Your task to perform on an android device: turn on sleep mode Image 0: 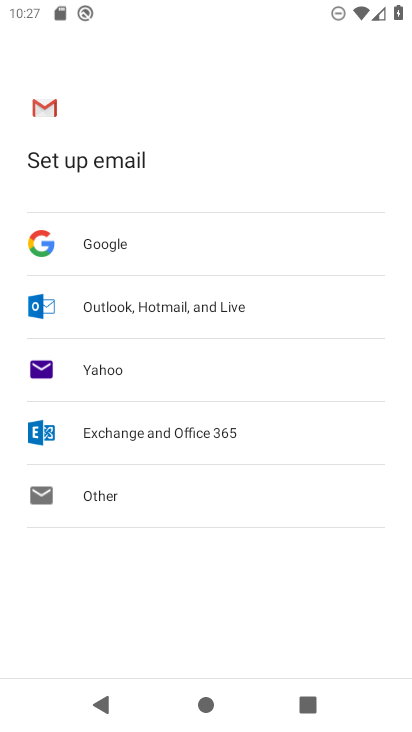
Step 0: drag from (244, 575) to (293, 250)
Your task to perform on an android device: turn on sleep mode Image 1: 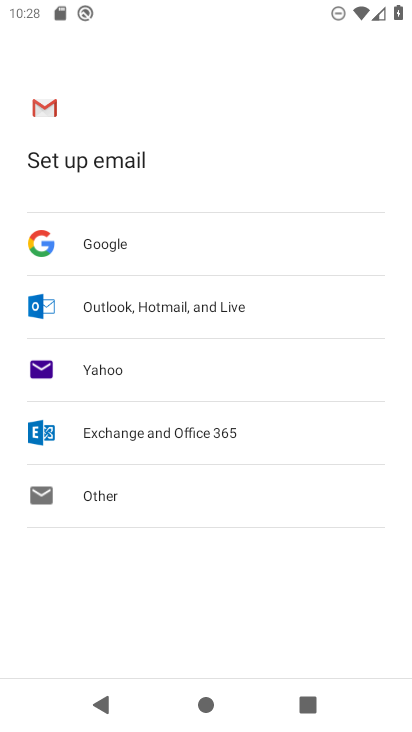
Step 1: press home button
Your task to perform on an android device: turn on sleep mode Image 2: 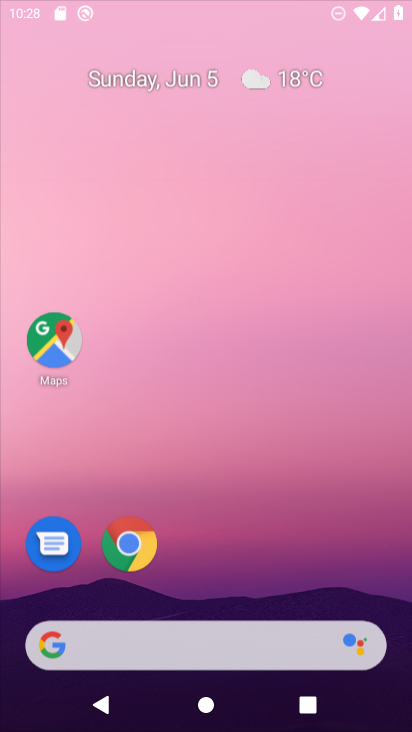
Step 2: drag from (223, 634) to (274, 17)
Your task to perform on an android device: turn on sleep mode Image 3: 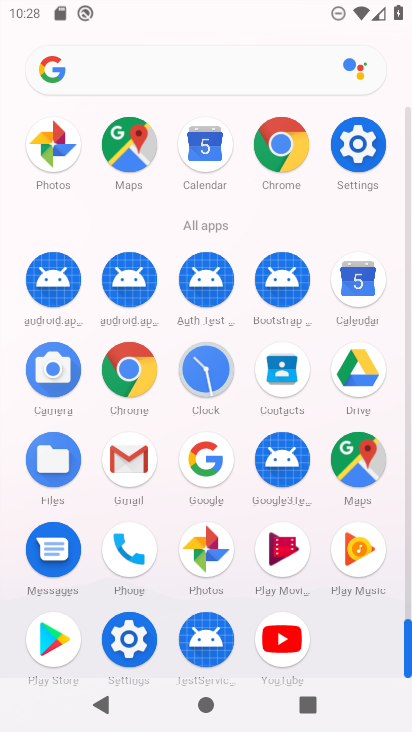
Step 3: drag from (273, 625) to (276, 133)
Your task to perform on an android device: turn on sleep mode Image 4: 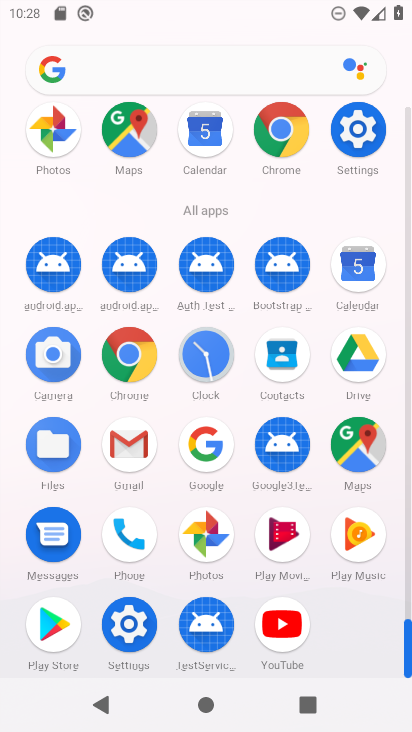
Step 4: click (354, 128)
Your task to perform on an android device: turn on sleep mode Image 5: 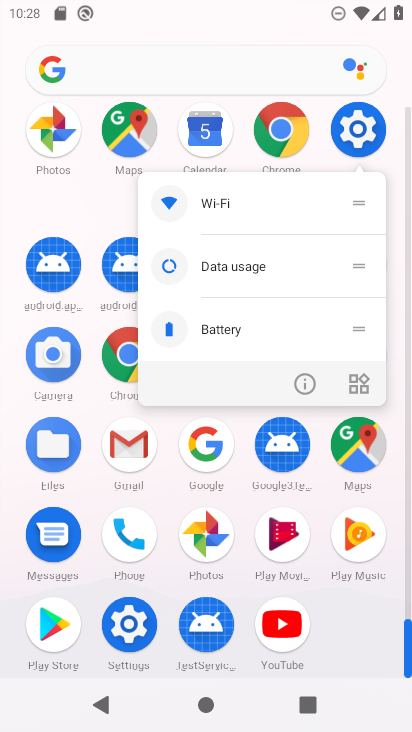
Step 5: click (310, 385)
Your task to perform on an android device: turn on sleep mode Image 6: 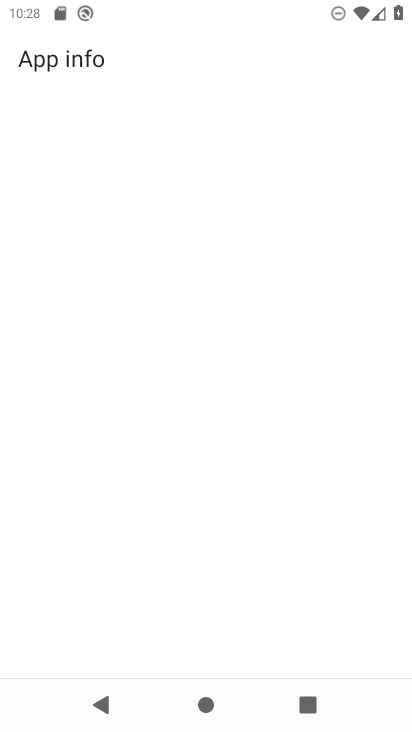
Step 6: drag from (190, 591) to (266, 150)
Your task to perform on an android device: turn on sleep mode Image 7: 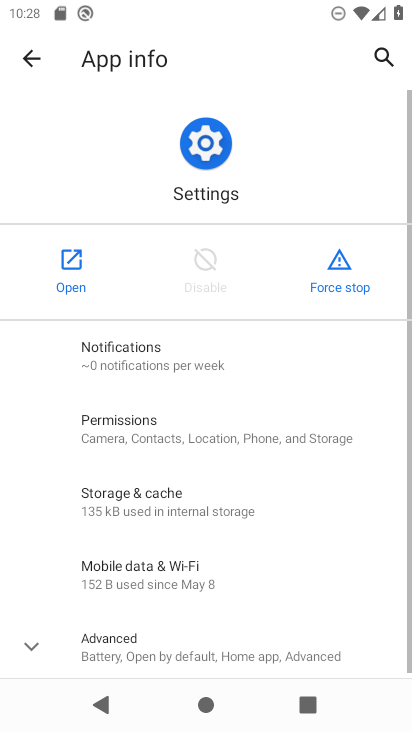
Step 7: click (77, 268)
Your task to perform on an android device: turn on sleep mode Image 8: 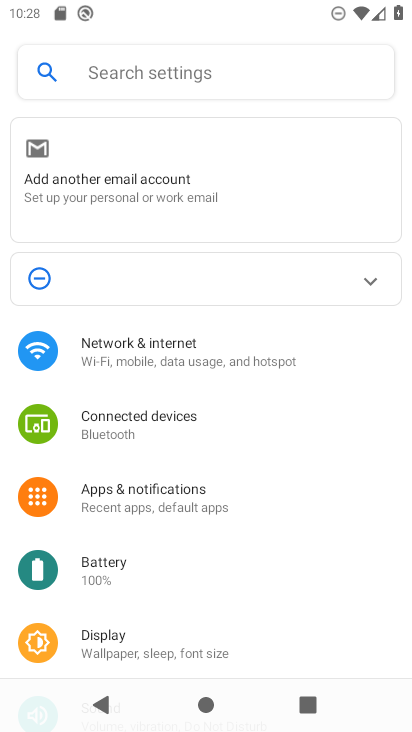
Step 8: click (132, 646)
Your task to perform on an android device: turn on sleep mode Image 9: 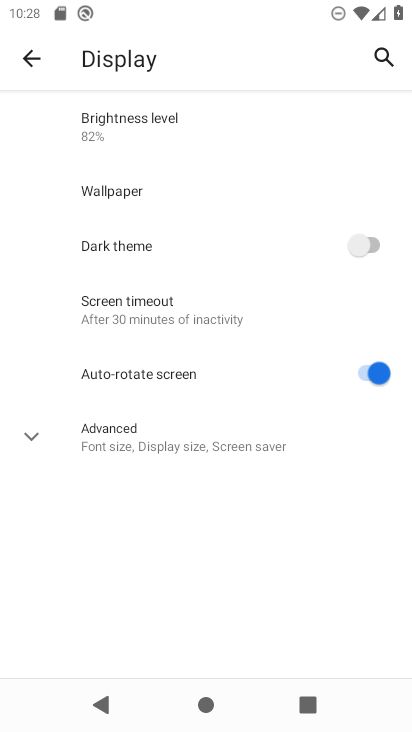
Step 9: click (174, 306)
Your task to perform on an android device: turn on sleep mode Image 10: 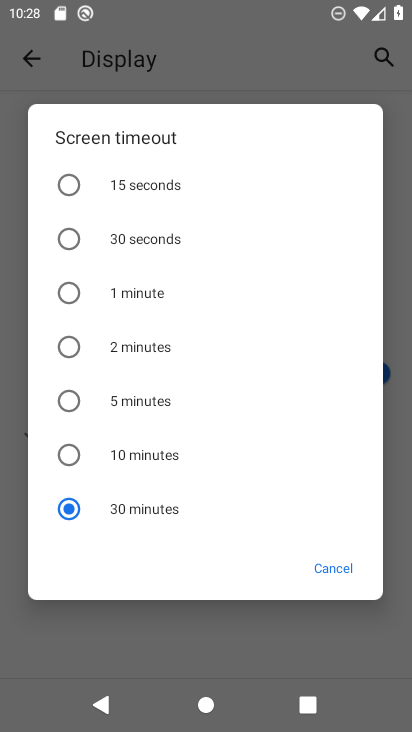
Step 10: task complete